Your task to perform on an android device: Open Google Maps Image 0: 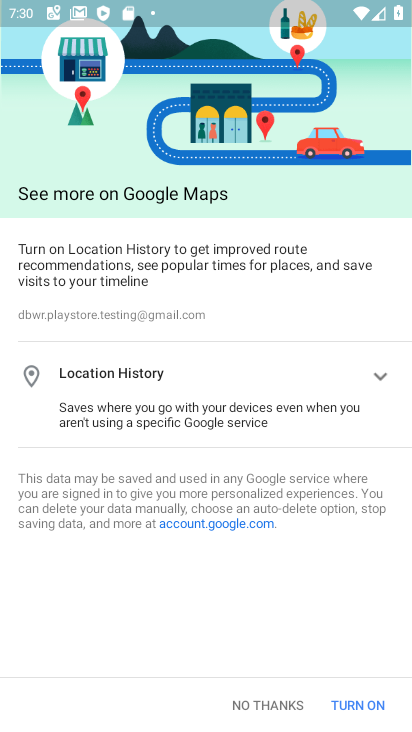
Step 0: press home button
Your task to perform on an android device: Open Google Maps Image 1: 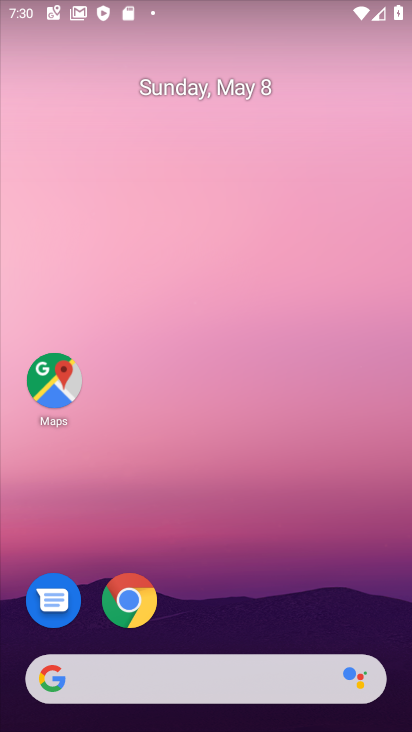
Step 1: drag from (324, 712) to (272, 404)
Your task to perform on an android device: Open Google Maps Image 2: 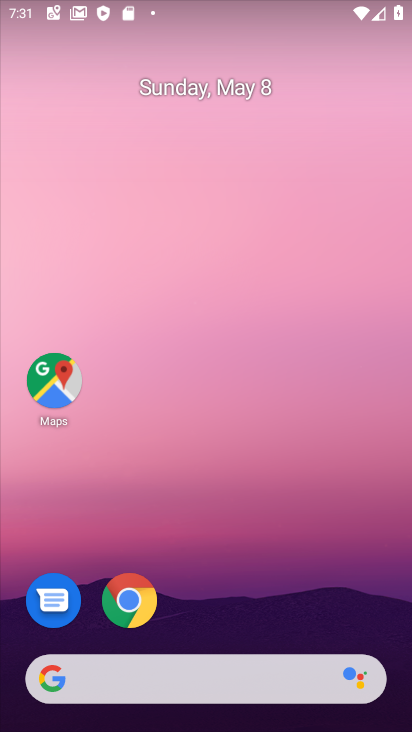
Step 2: drag from (306, 725) to (162, 234)
Your task to perform on an android device: Open Google Maps Image 3: 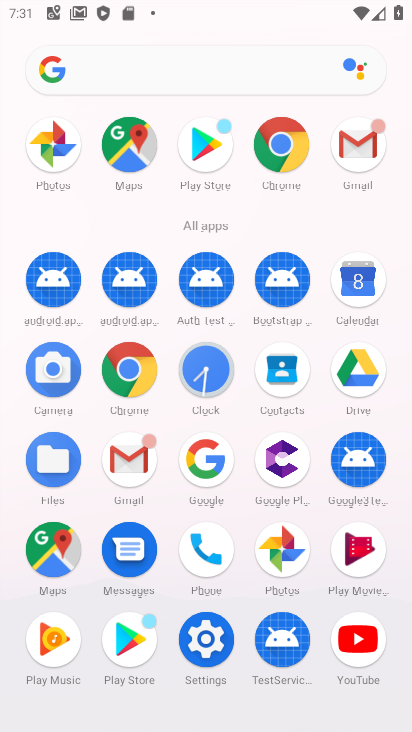
Step 3: click (129, 131)
Your task to perform on an android device: Open Google Maps Image 4: 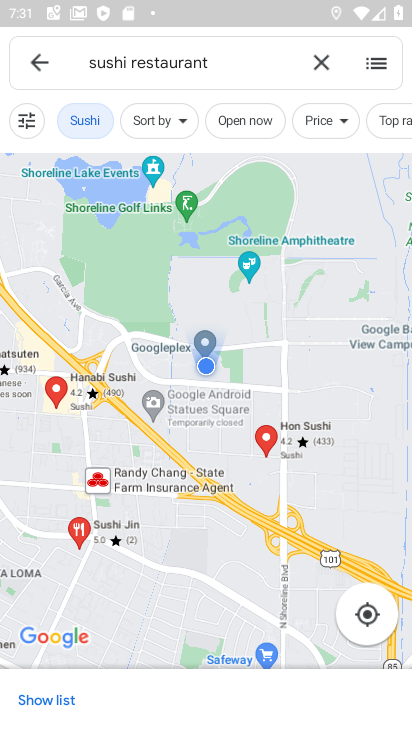
Step 4: click (29, 62)
Your task to perform on an android device: Open Google Maps Image 5: 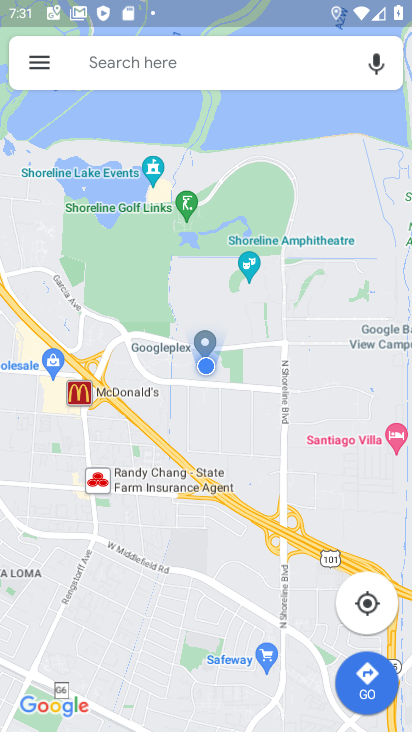
Step 5: click (371, 595)
Your task to perform on an android device: Open Google Maps Image 6: 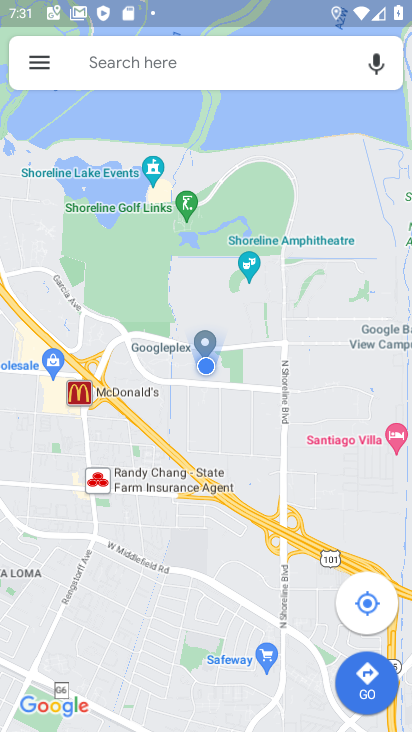
Step 6: task complete